Your task to perform on an android device: Open CNN.com Image 0: 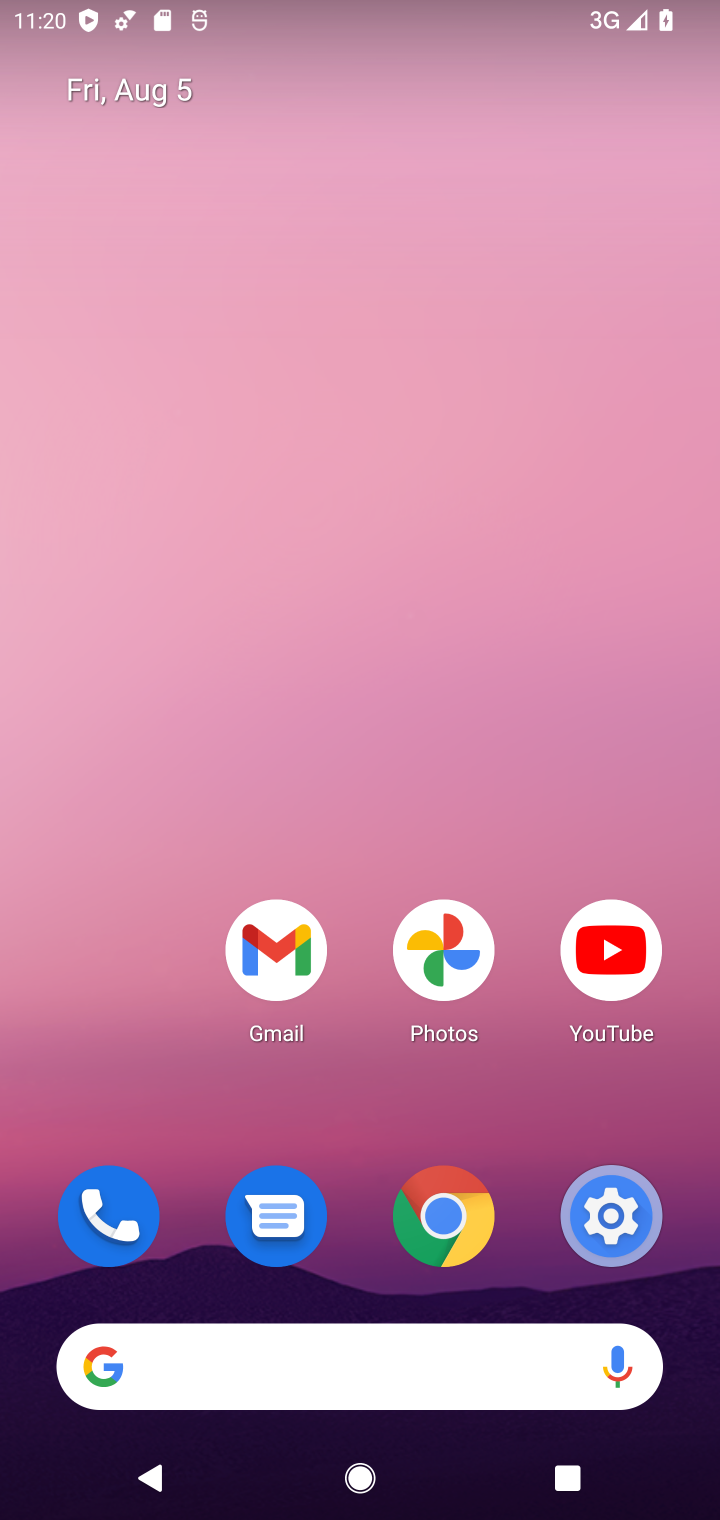
Step 0: drag from (346, 1375) to (428, 71)
Your task to perform on an android device: Open CNN.com Image 1: 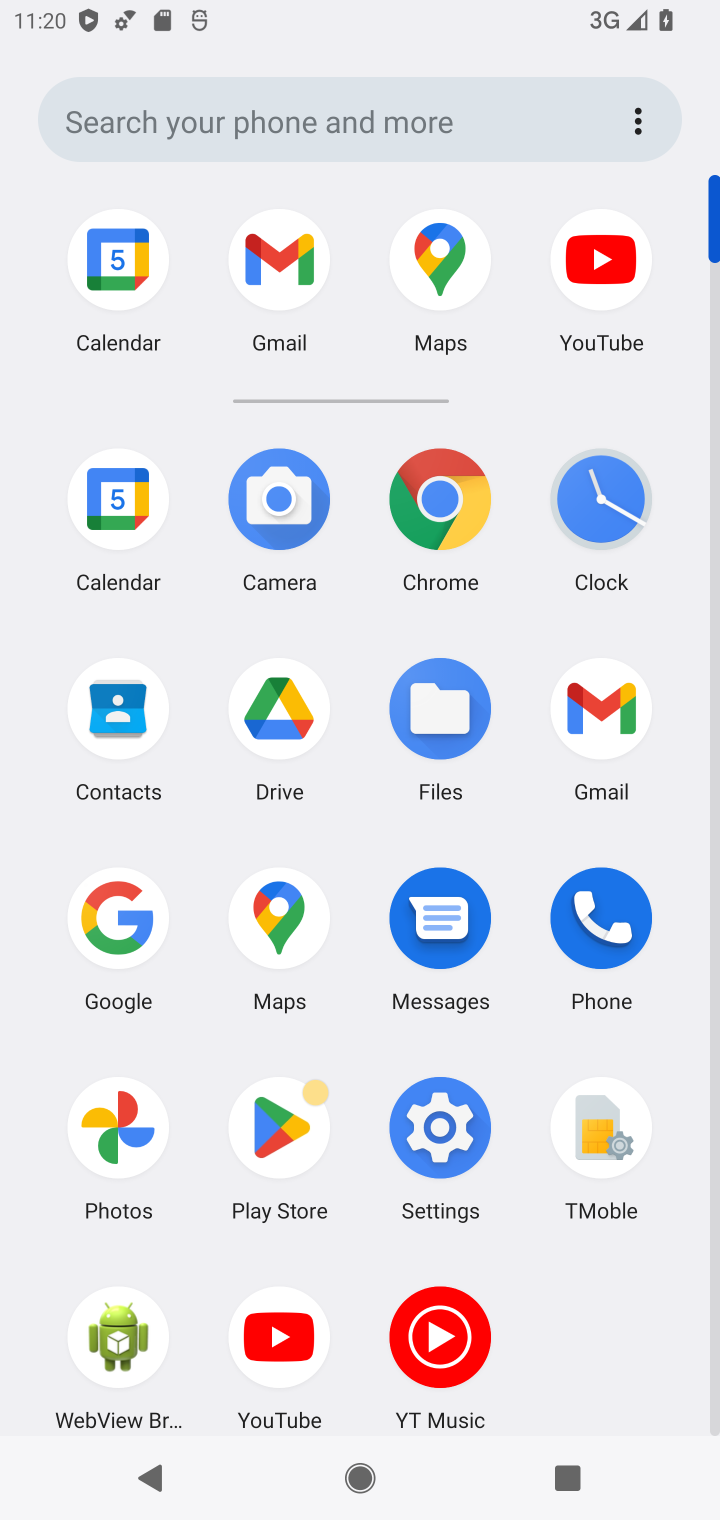
Step 1: click (416, 504)
Your task to perform on an android device: Open CNN.com Image 2: 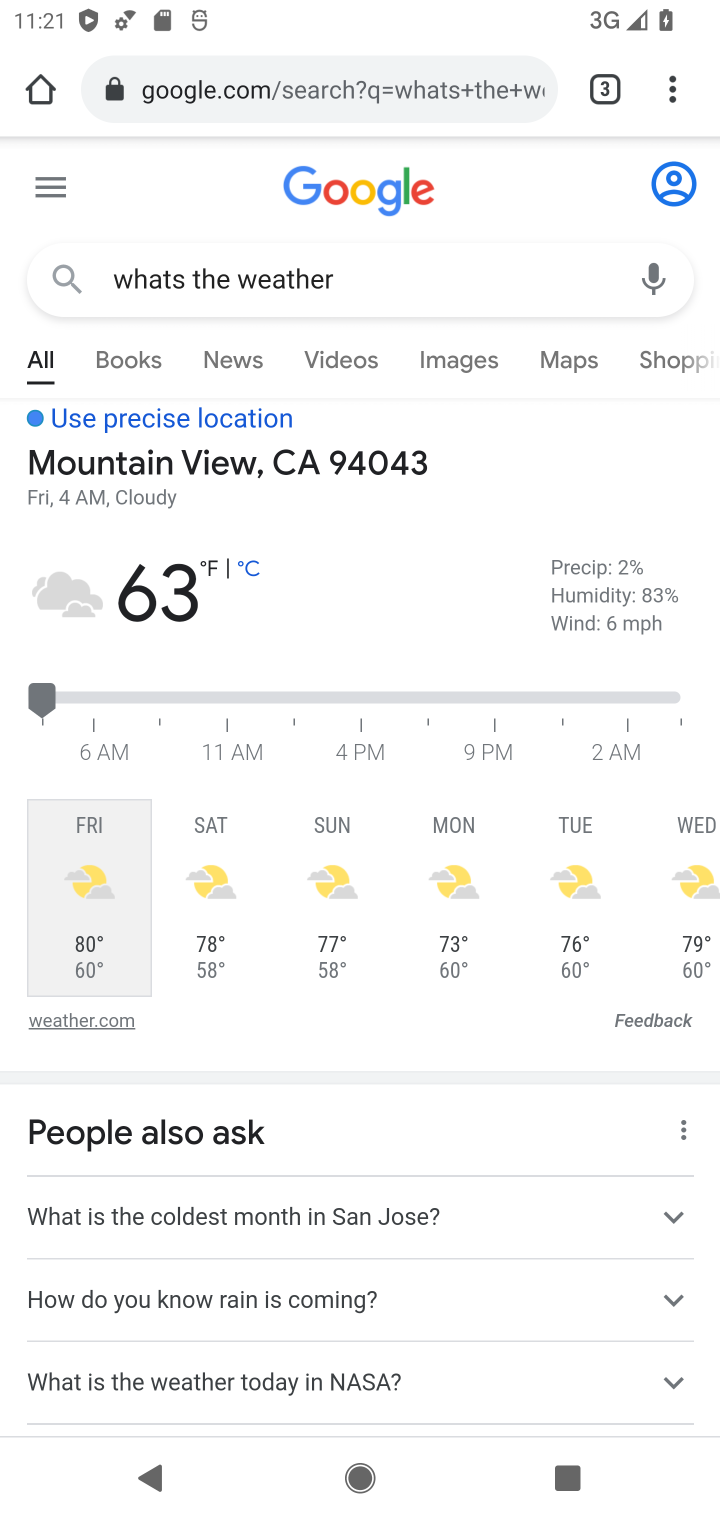
Step 2: click (519, 94)
Your task to perform on an android device: Open CNN.com Image 3: 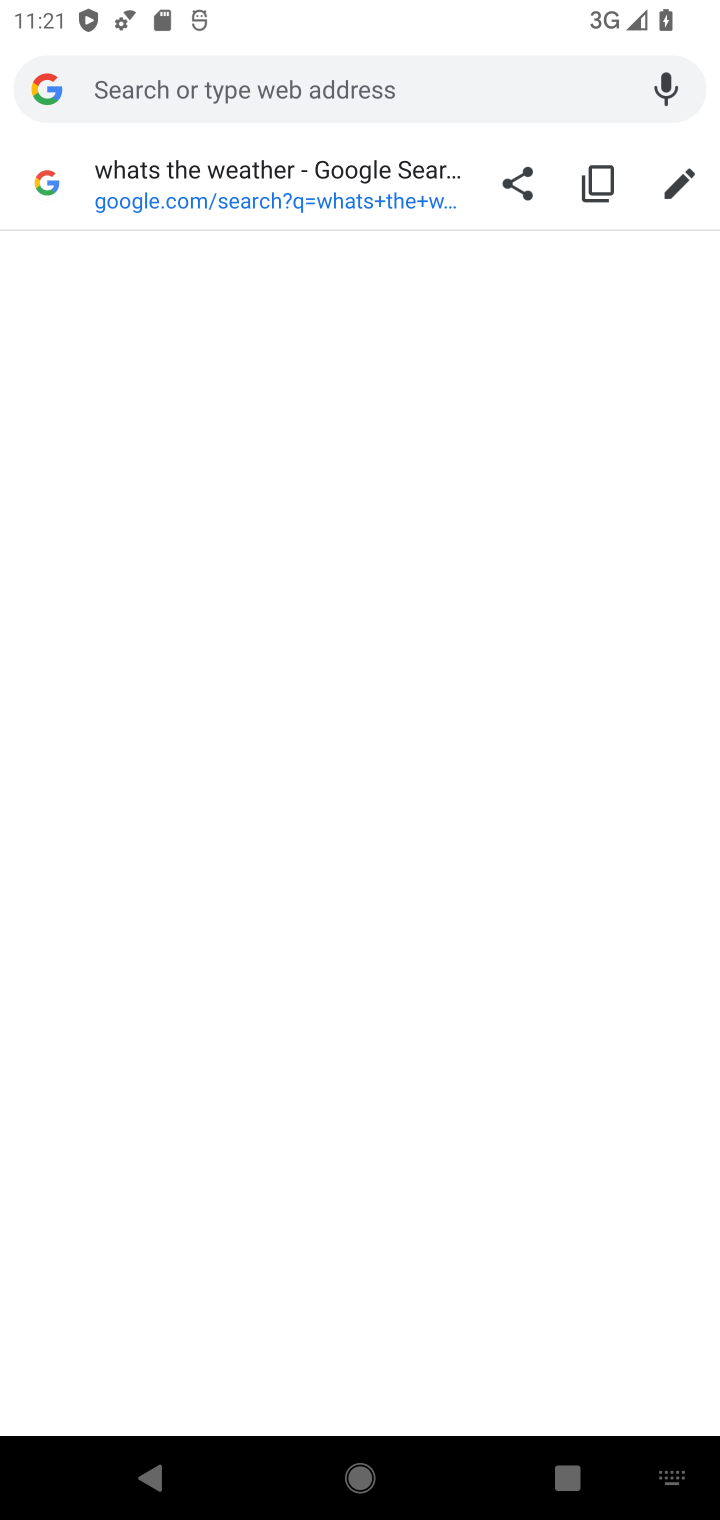
Step 3: type "cnn.com"
Your task to perform on an android device: Open CNN.com Image 4: 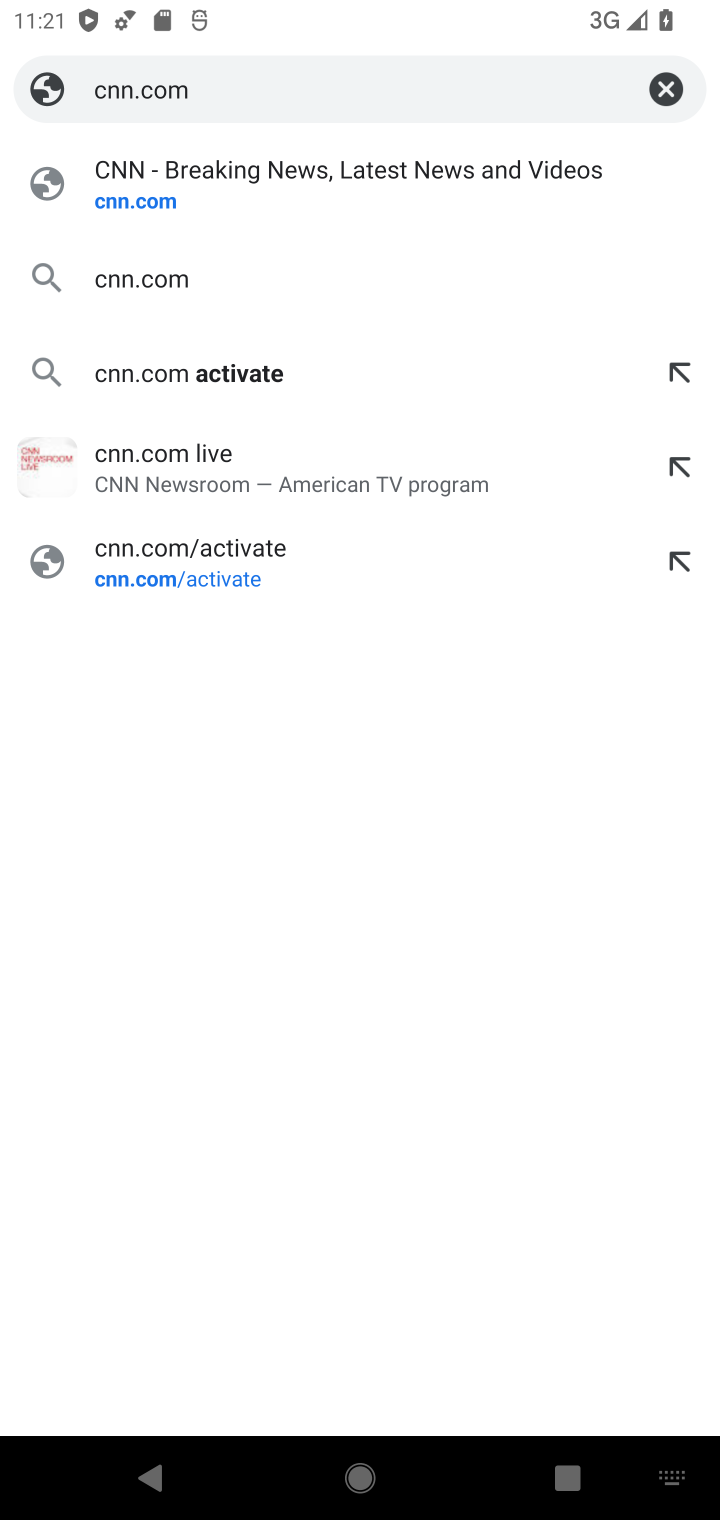
Step 4: click (324, 190)
Your task to perform on an android device: Open CNN.com Image 5: 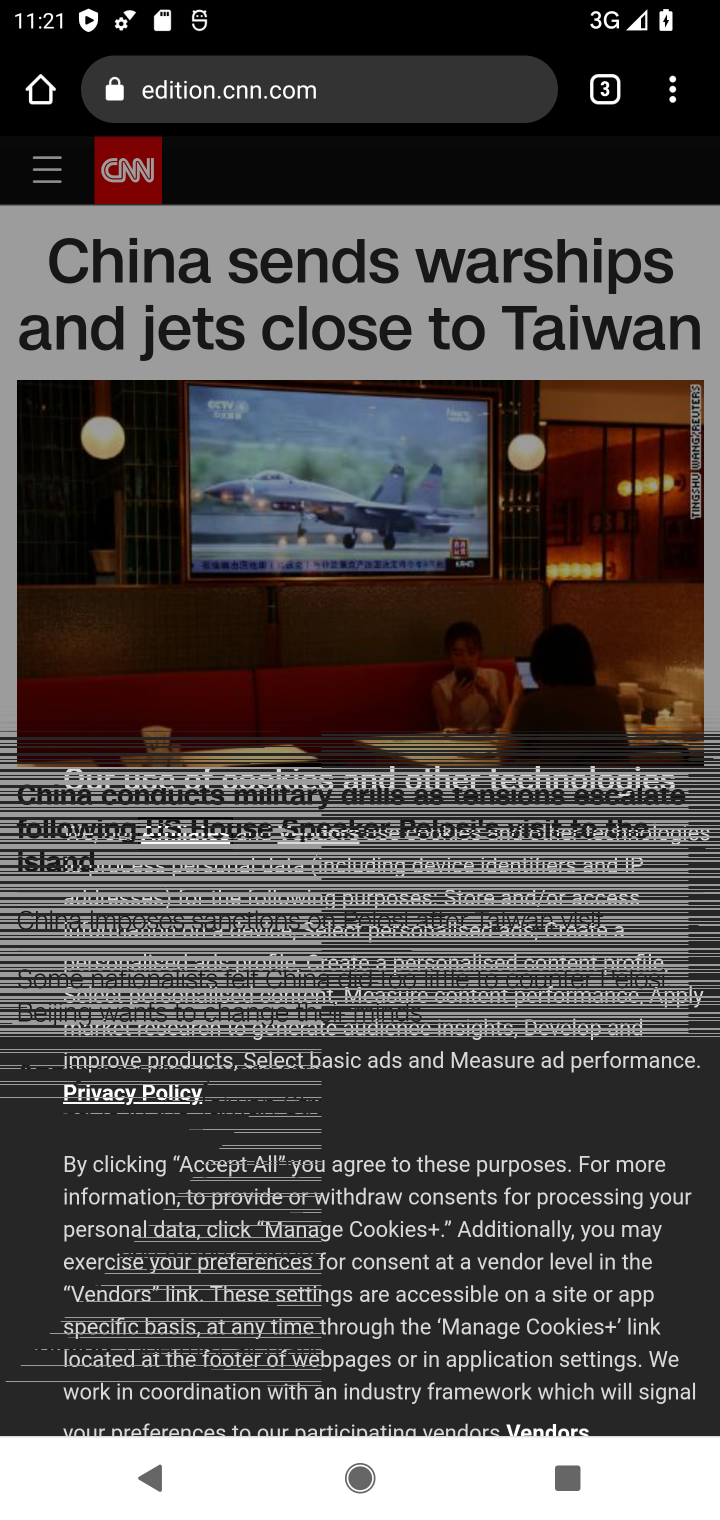
Step 5: task complete